Your task to perform on an android device: create a new album in the google photos Image 0: 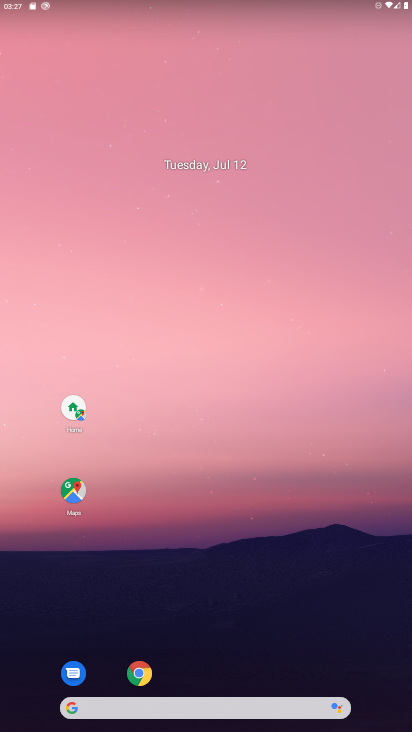
Step 0: drag from (219, 469) to (224, 230)
Your task to perform on an android device: create a new album in the google photos Image 1: 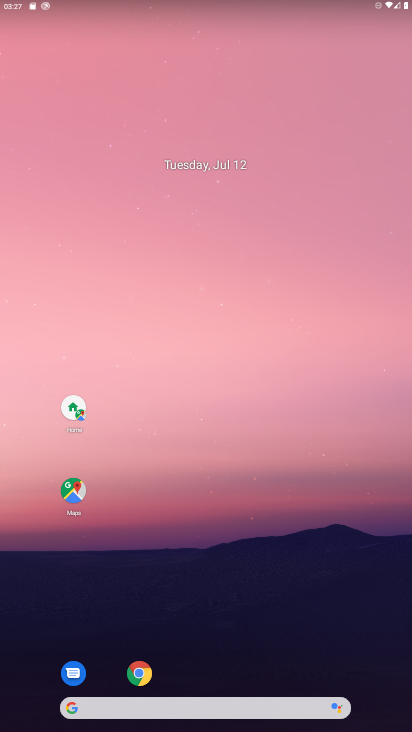
Step 1: drag from (237, 652) to (233, 178)
Your task to perform on an android device: create a new album in the google photos Image 2: 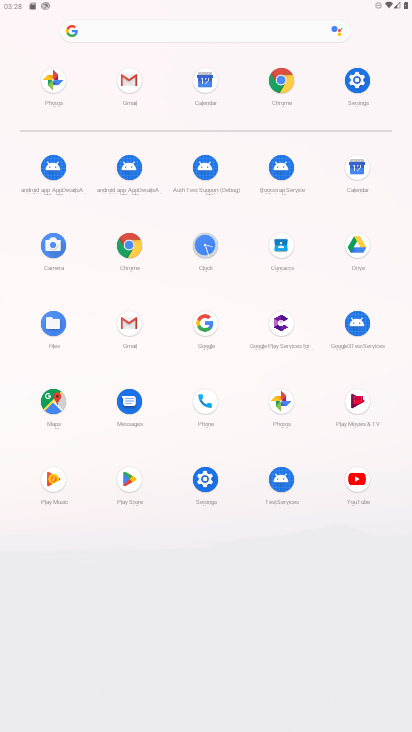
Step 2: click (280, 400)
Your task to perform on an android device: create a new album in the google photos Image 3: 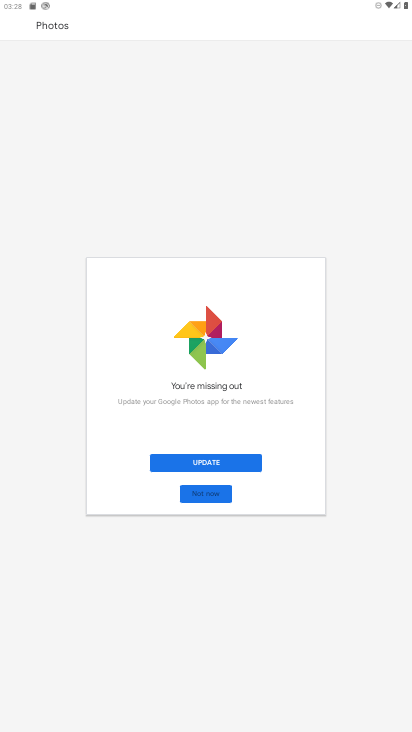
Step 3: click (206, 487)
Your task to perform on an android device: create a new album in the google photos Image 4: 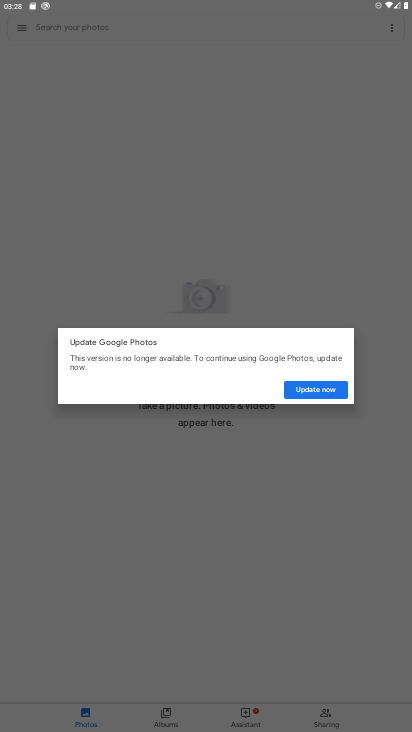
Step 4: task complete